Your task to perform on an android device: see tabs open on other devices in the chrome app Image 0: 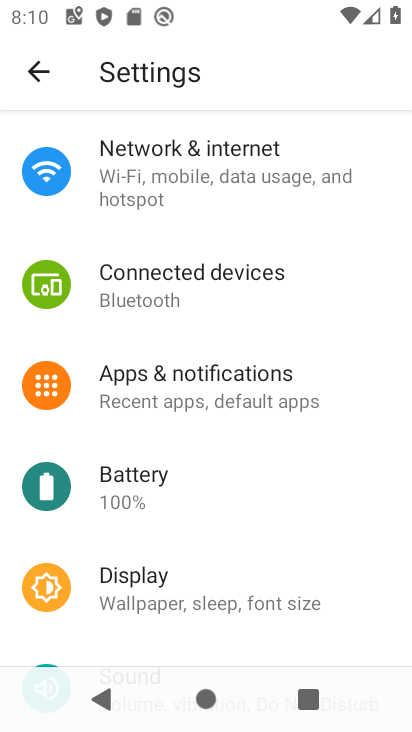
Step 0: press home button
Your task to perform on an android device: see tabs open on other devices in the chrome app Image 1: 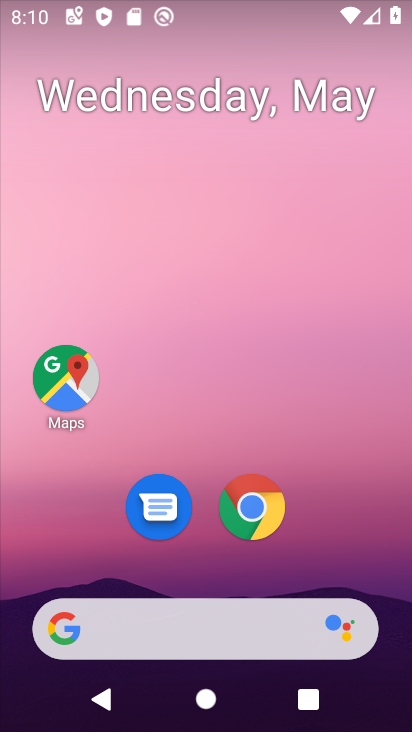
Step 1: click (258, 505)
Your task to perform on an android device: see tabs open on other devices in the chrome app Image 2: 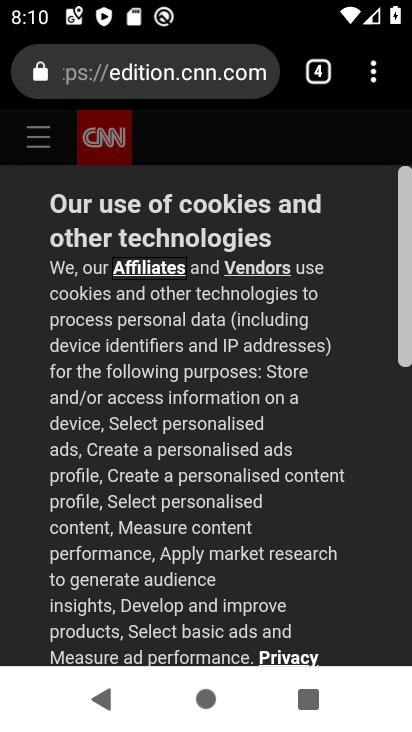
Step 2: click (376, 74)
Your task to perform on an android device: see tabs open on other devices in the chrome app Image 3: 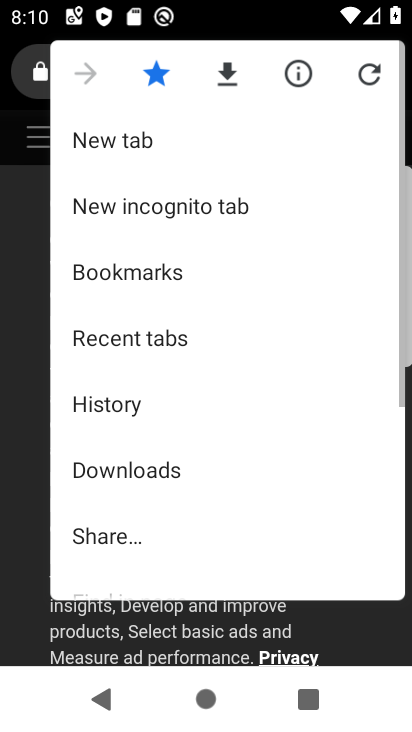
Step 3: click (144, 409)
Your task to perform on an android device: see tabs open on other devices in the chrome app Image 4: 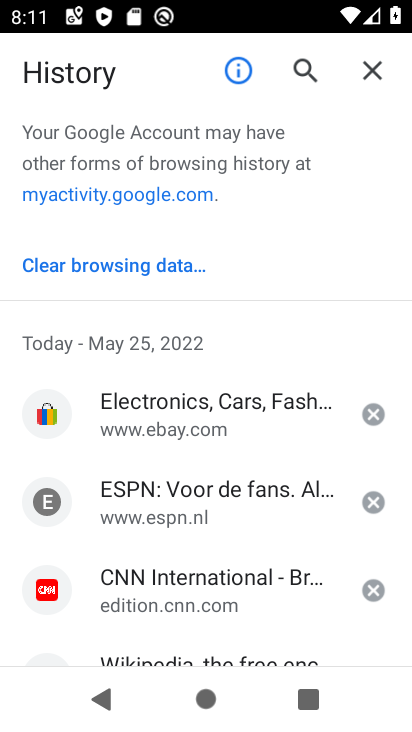
Step 4: task complete